Your task to perform on an android device: change the clock display to show seconds Image 0: 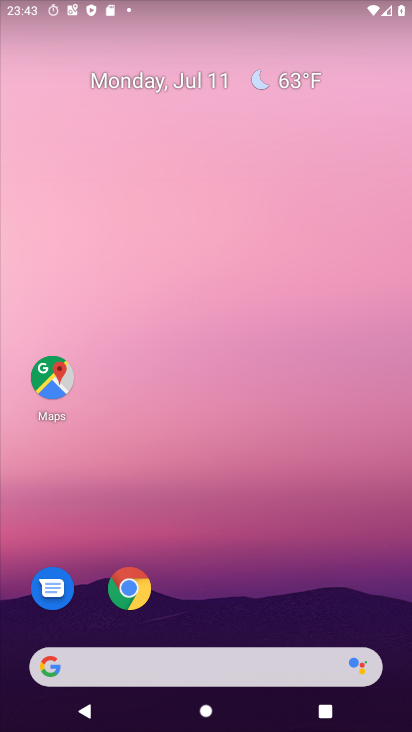
Step 0: drag from (237, 709) to (236, 36)
Your task to perform on an android device: change the clock display to show seconds Image 1: 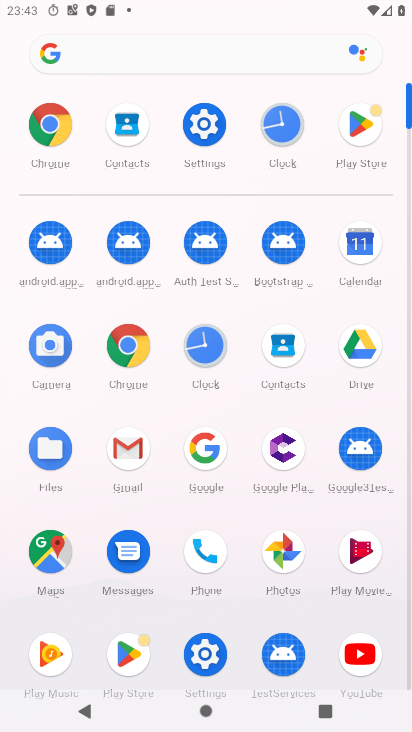
Step 1: click (209, 343)
Your task to perform on an android device: change the clock display to show seconds Image 2: 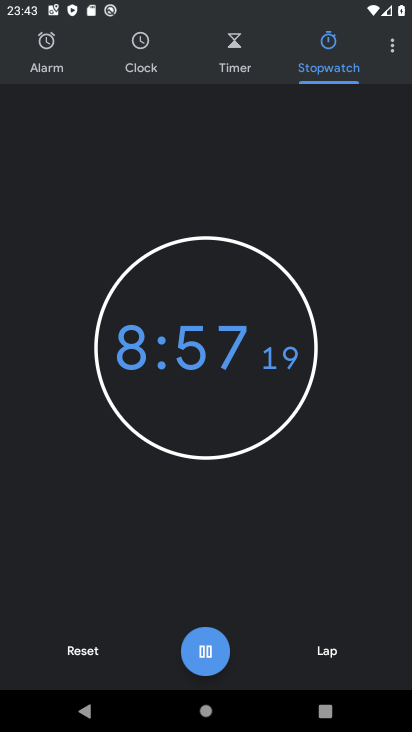
Step 2: click (392, 49)
Your task to perform on an android device: change the clock display to show seconds Image 3: 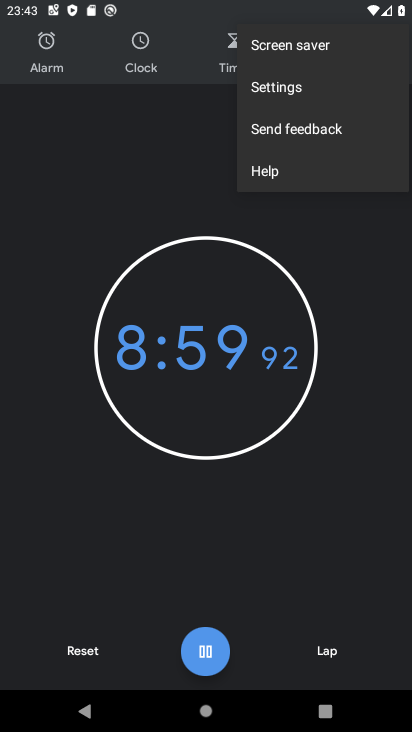
Step 3: click (282, 91)
Your task to perform on an android device: change the clock display to show seconds Image 4: 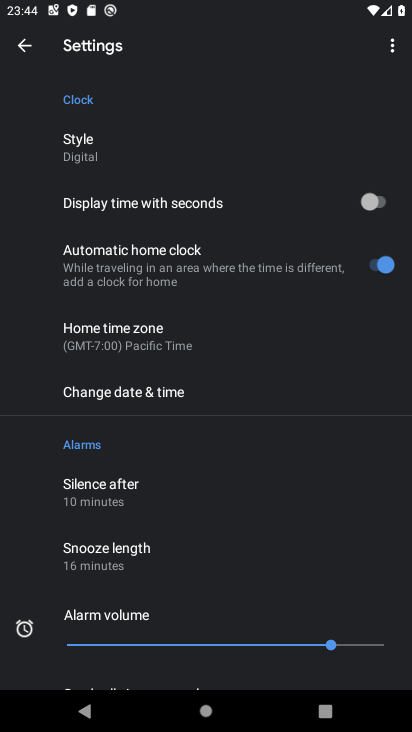
Step 4: click (377, 202)
Your task to perform on an android device: change the clock display to show seconds Image 5: 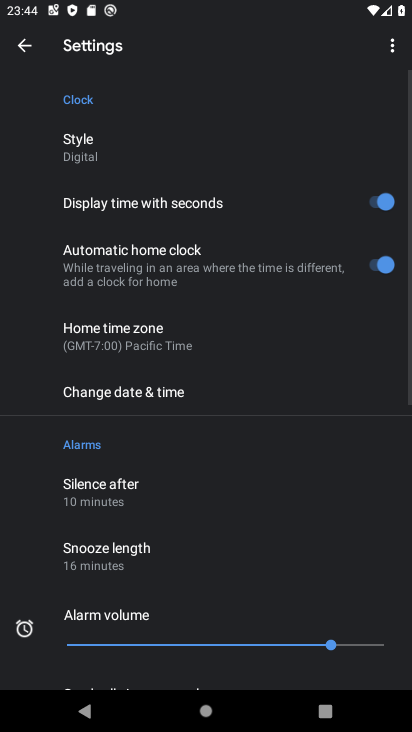
Step 5: task complete